Your task to perform on an android device: Search for seafood restaurants on Google Maps Image 0: 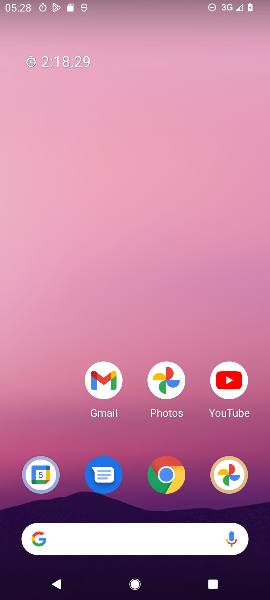
Step 0: press home button
Your task to perform on an android device: Search for seafood restaurants on Google Maps Image 1: 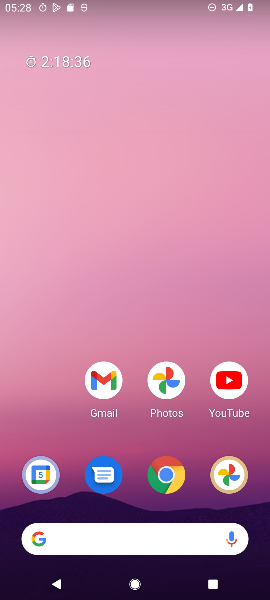
Step 1: drag from (64, 436) to (40, 224)
Your task to perform on an android device: Search for seafood restaurants on Google Maps Image 2: 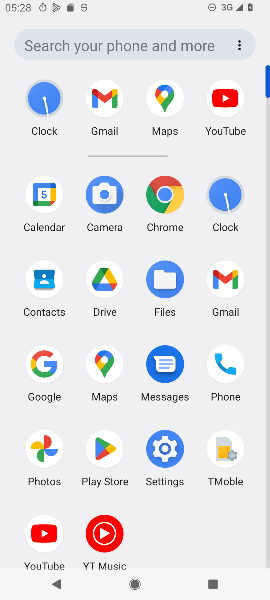
Step 2: click (104, 370)
Your task to perform on an android device: Search for seafood restaurants on Google Maps Image 3: 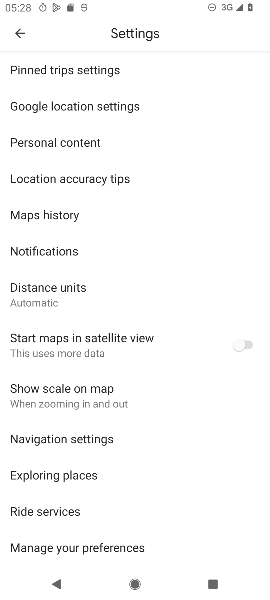
Step 3: press back button
Your task to perform on an android device: Search for seafood restaurants on Google Maps Image 4: 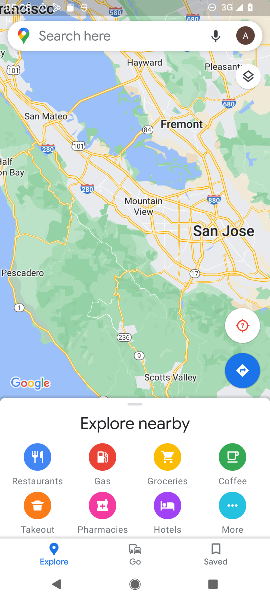
Step 4: click (113, 37)
Your task to perform on an android device: Search for seafood restaurants on Google Maps Image 5: 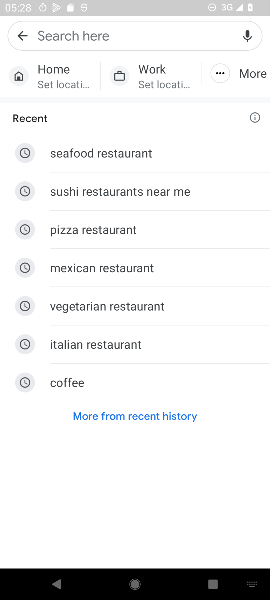
Step 5: type "seafood restaurants"
Your task to perform on an android device: Search for seafood restaurants on Google Maps Image 6: 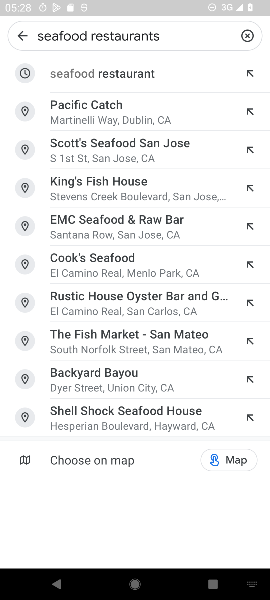
Step 6: click (150, 70)
Your task to perform on an android device: Search for seafood restaurants on Google Maps Image 7: 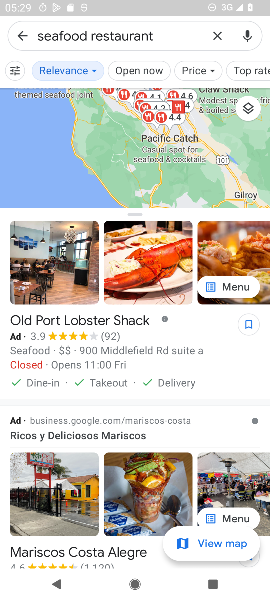
Step 7: task complete